Your task to perform on an android device: Go to sound settings Image 0: 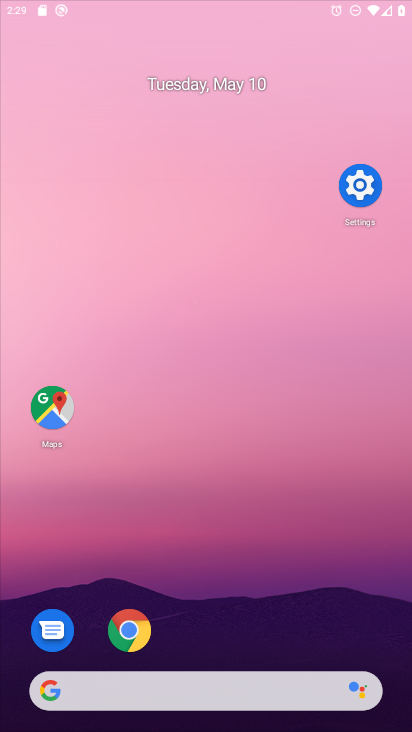
Step 0: drag from (165, 137) to (136, 84)
Your task to perform on an android device: Go to sound settings Image 1: 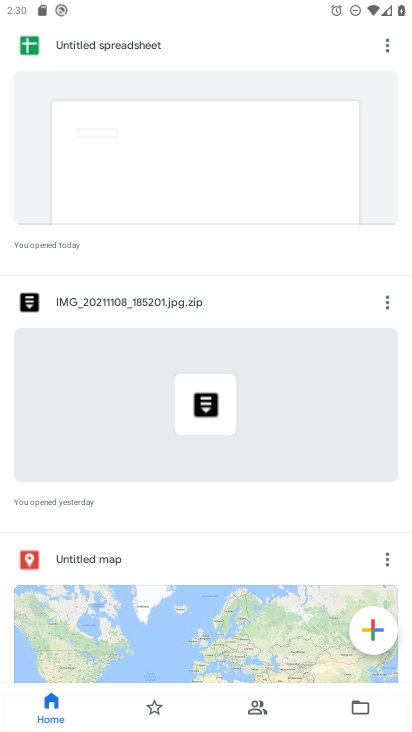
Step 1: press back button
Your task to perform on an android device: Go to sound settings Image 2: 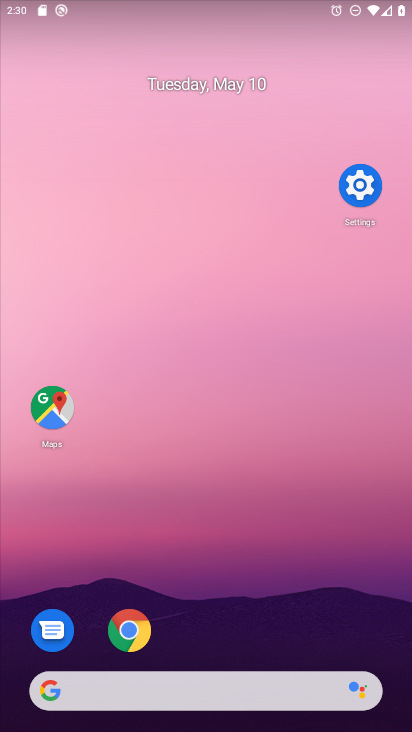
Step 2: drag from (282, 640) to (211, 106)
Your task to perform on an android device: Go to sound settings Image 3: 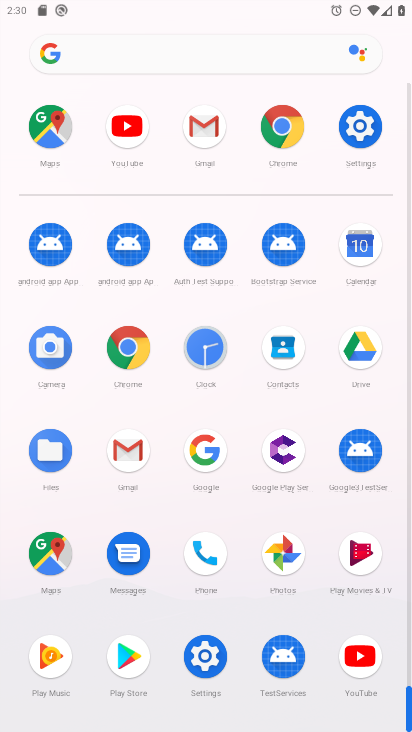
Step 3: click (356, 132)
Your task to perform on an android device: Go to sound settings Image 4: 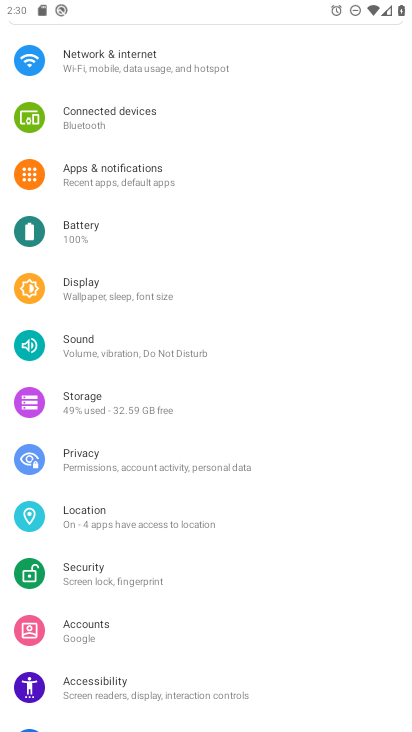
Step 4: click (96, 340)
Your task to perform on an android device: Go to sound settings Image 5: 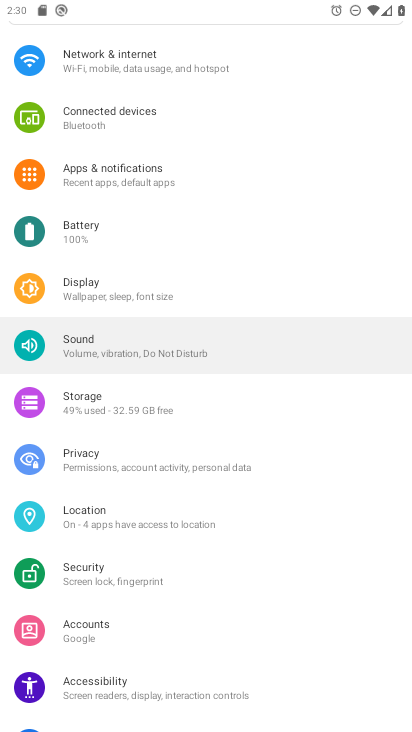
Step 5: click (95, 341)
Your task to perform on an android device: Go to sound settings Image 6: 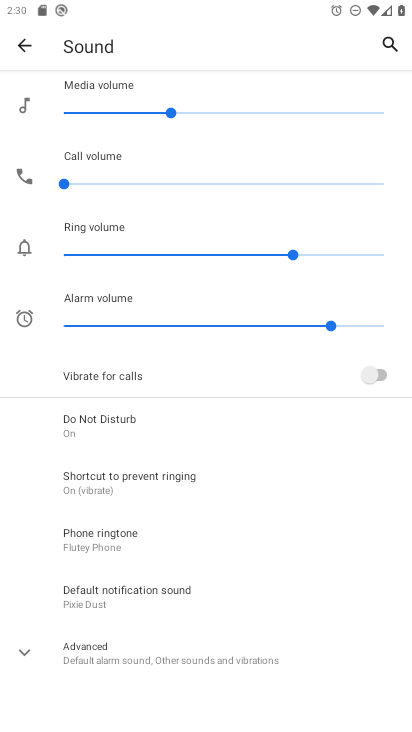
Step 6: task complete